Your task to perform on an android device: What's on my calendar today? Image 0: 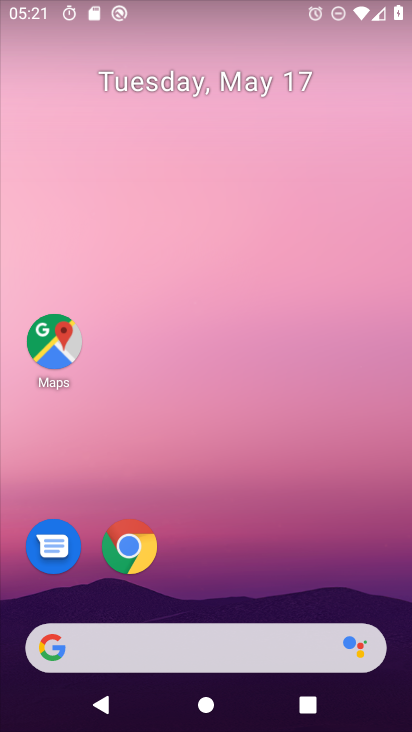
Step 0: drag from (388, 647) to (370, 383)
Your task to perform on an android device: What's on my calendar today? Image 1: 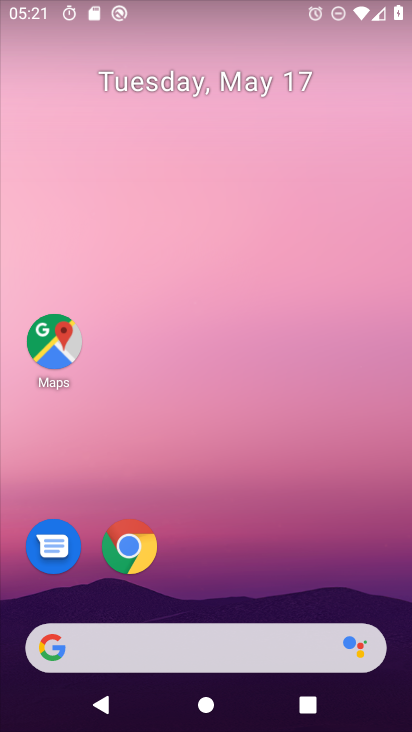
Step 1: drag from (400, 657) to (403, 242)
Your task to perform on an android device: What's on my calendar today? Image 2: 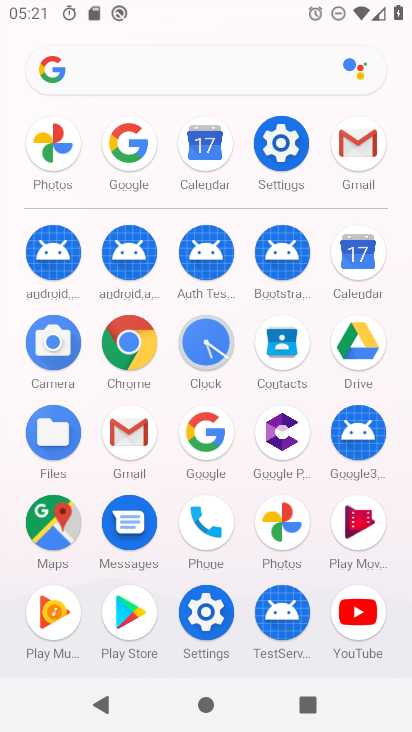
Step 2: click (350, 258)
Your task to perform on an android device: What's on my calendar today? Image 3: 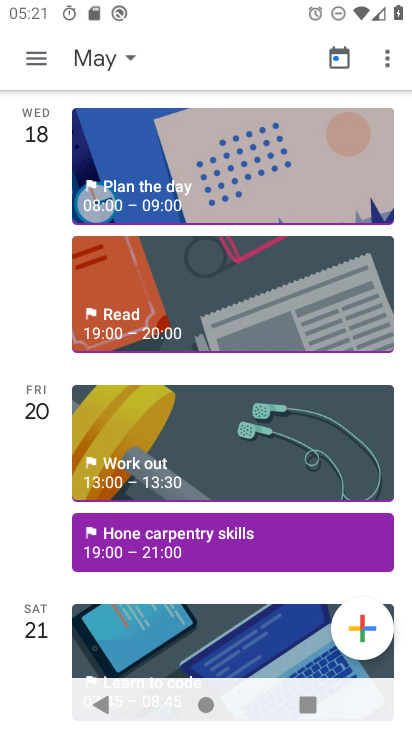
Step 3: click (40, 52)
Your task to perform on an android device: What's on my calendar today? Image 4: 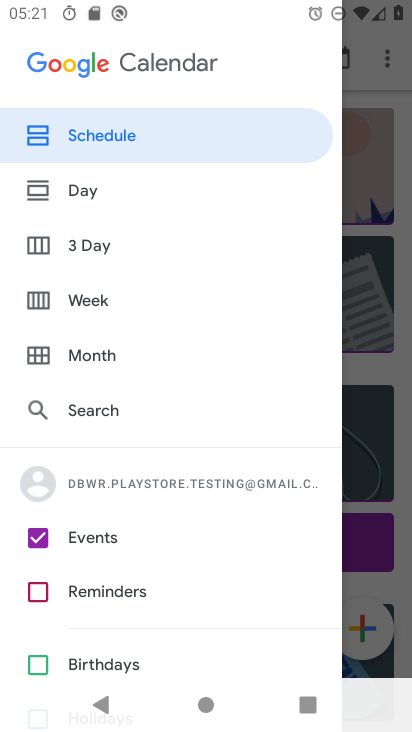
Step 4: click (89, 194)
Your task to perform on an android device: What's on my calendar today? Image 5: 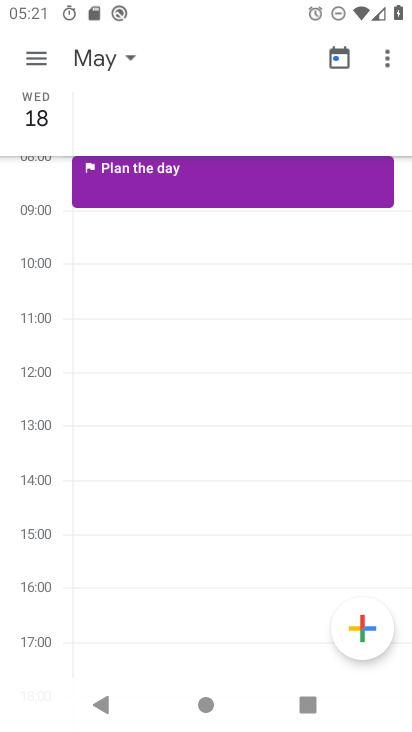
Step 5: click (134, 61)
Your task to perform on an android device: What's on my calendar today? Image 6: 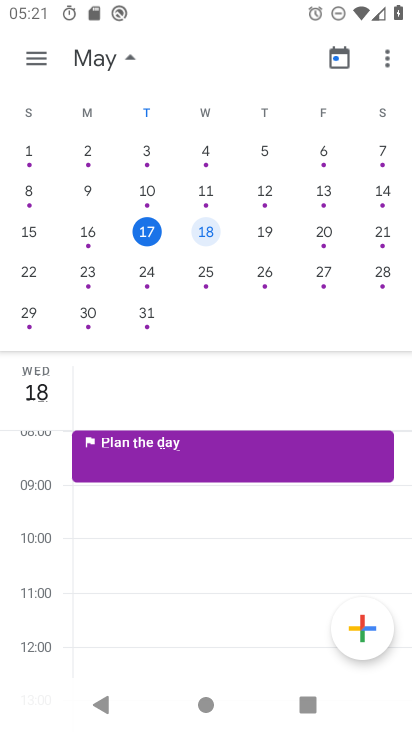
Step 6: click (146, 231)
Your task to perform on an android device: What's on my calendar today? Image 7: 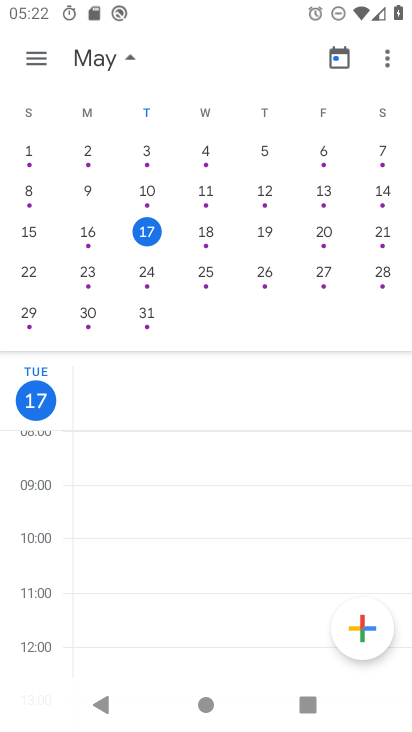
Step 7: click (145, 226)
Your task to perform on an android device: What's on my calendar today? Image 8: 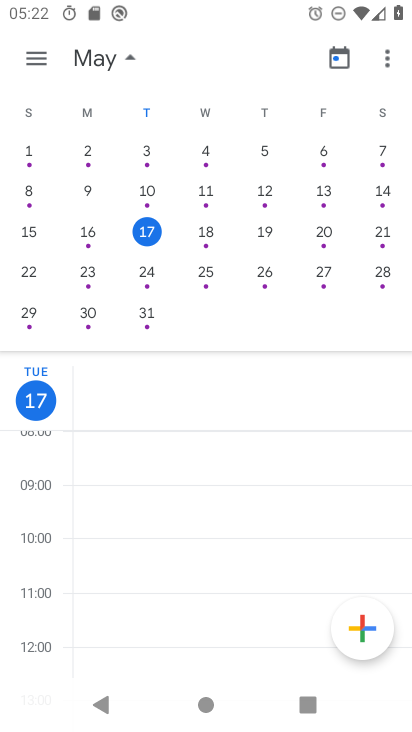
Step 8: click (39, 52)
Your task to perform on an android device: What's on my calendar today? Image 9: 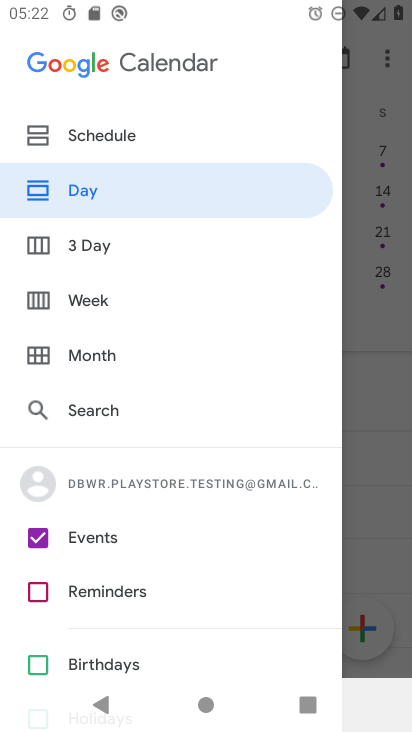
Step 9: click (81, 187)
Your task to perform on an android device: What's on my calendar today? Image 10: 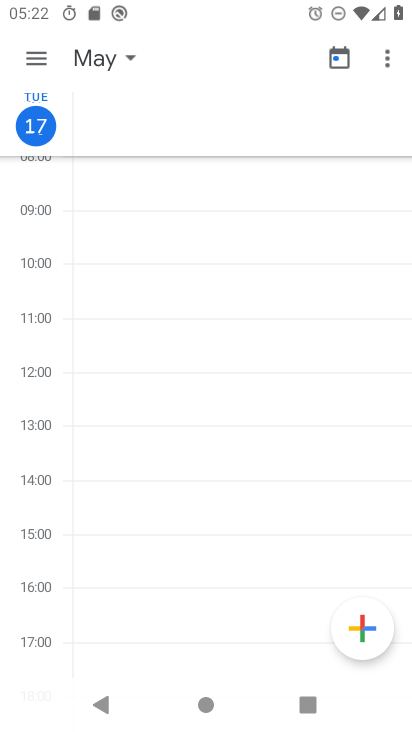
Step 10: task complete